Your task to perform on an android device: Go to Amazon Image 0: 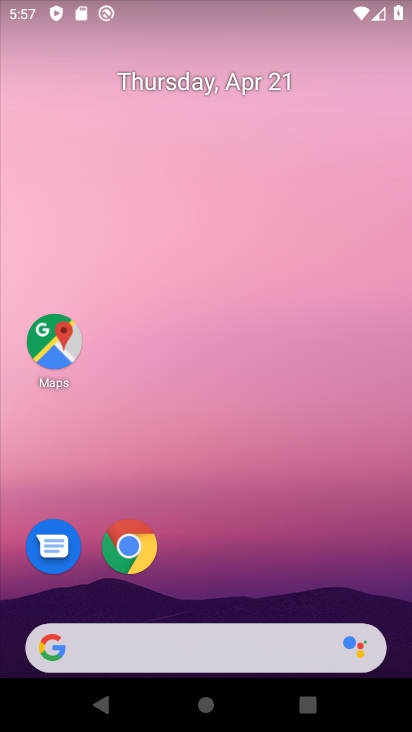
Step 0: drag from (226, 584) to (145, 79)
Your task to perform on an android device: Go to Amazon Image 1: 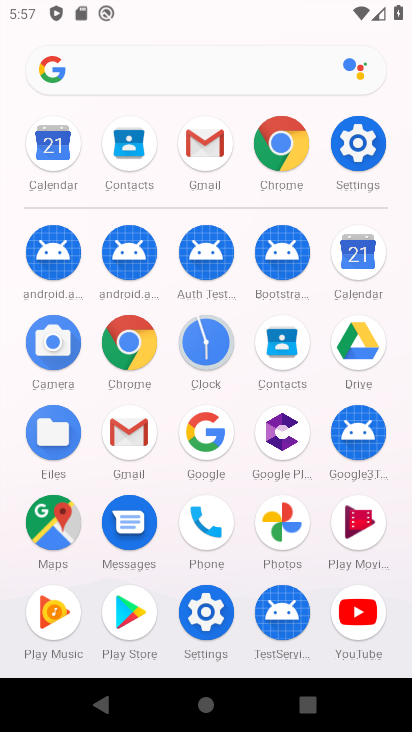
Step 1: click (135, 346)
Your task to perform on an android device: Go to Amazon Image 2: 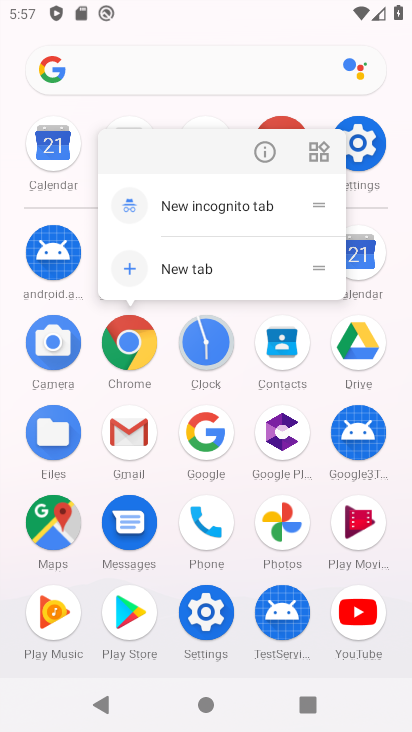
Step 2: click (137, 338)
Your task to perform on an android device: Go to Amazon Image 3: 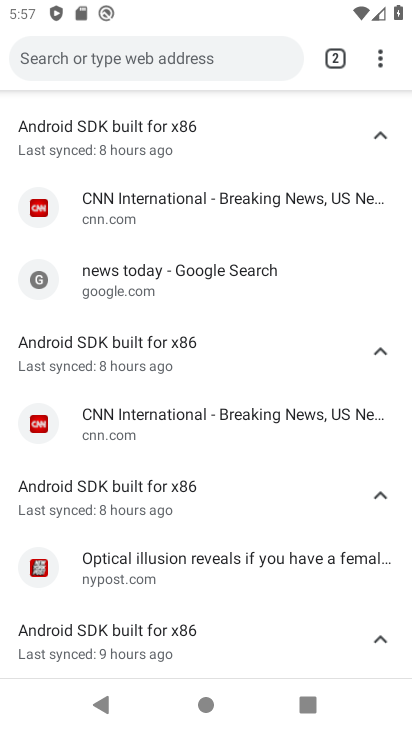
Step 3: task complete